Your task to perform on an android device: turn on improve location accuracy Image 0: 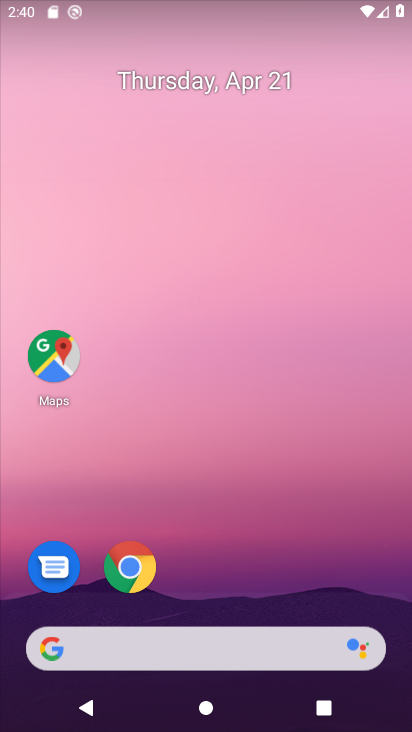
Step 0: drag from (255, 628) to (261, 123)
Your task to perform on an android device: turn on improve location accuracy Image 1: 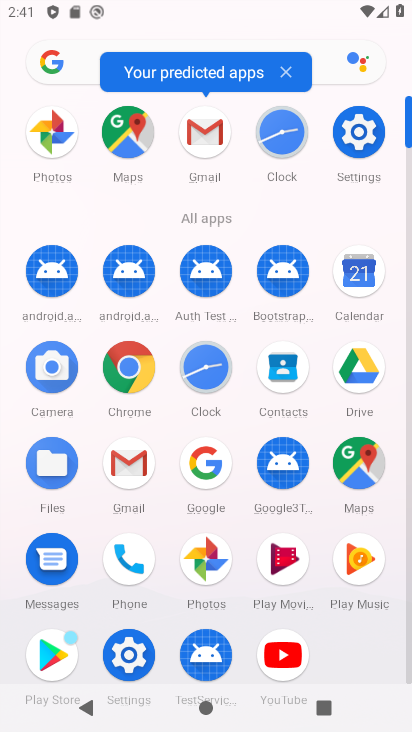
Step 1: click (360, 129)
Your task to perform on an android device: turn on improve location accuracy Image 2: 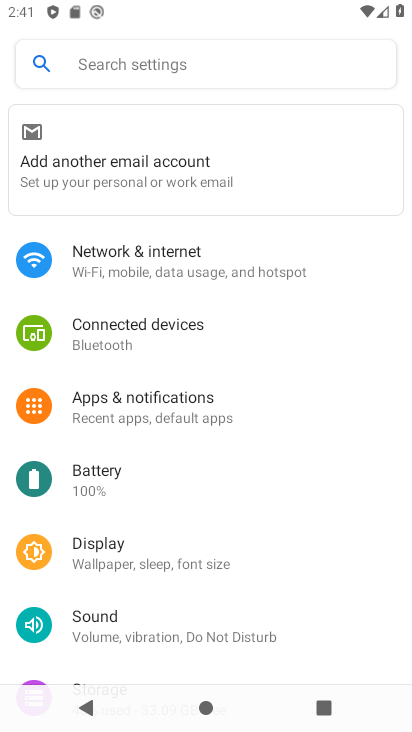
Step 2: drag from (168, 629) to (240, 220)
Your task to perform on an android device: turn on improve location accuracy Image 3: 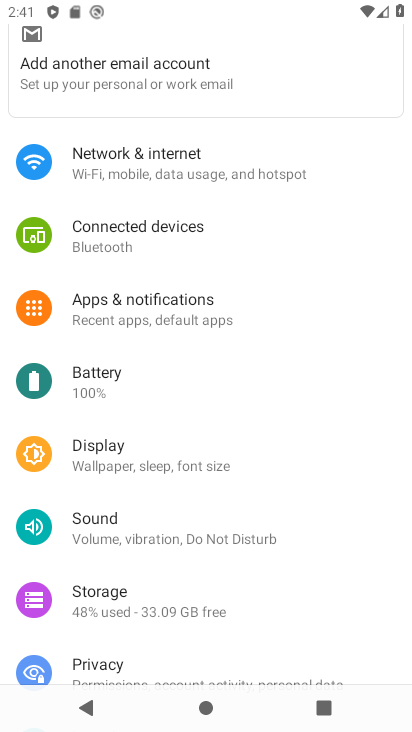
Step 3: drag from (105, 613) to (188, 183)
Your task to perform on an android device: turn on improve location accuracy Image 4: 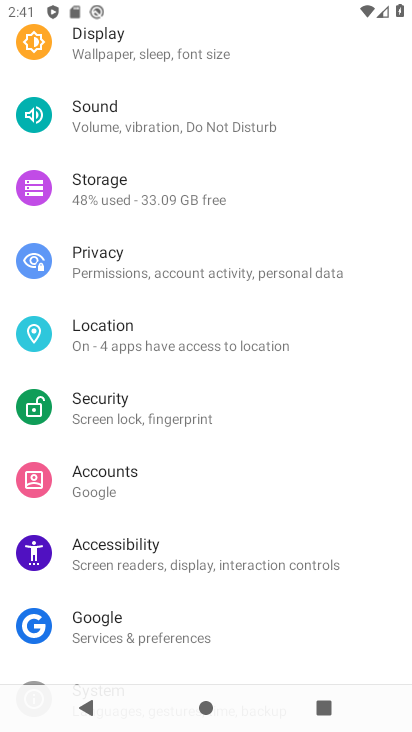
Step 4: click (130, 335)
Your task to perform on an android device: turn on improve location accuracy Image 5: 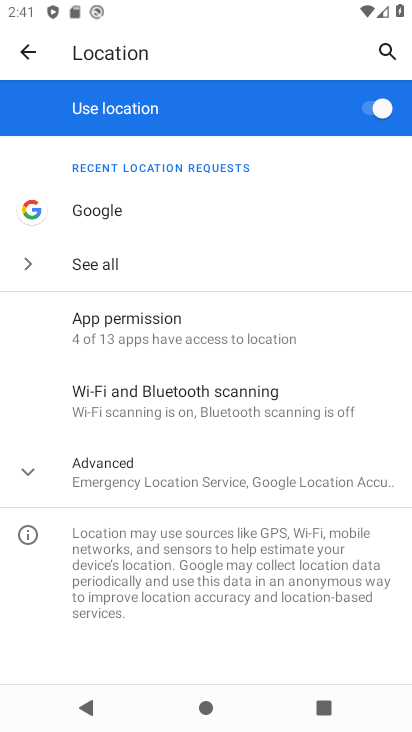
Step 5: click (100, 485)
Your task to perform on an android device: turn on improve location accuracy Image 6: 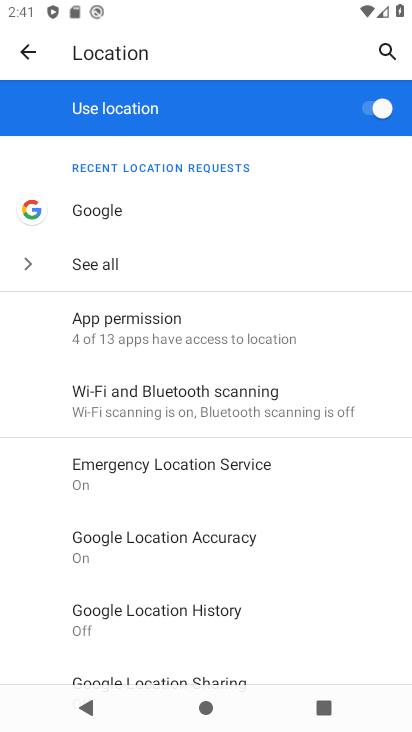
Step 6: click (186, 549)
Your task to perform on an android device: turn on improve location accuracy Image 7: 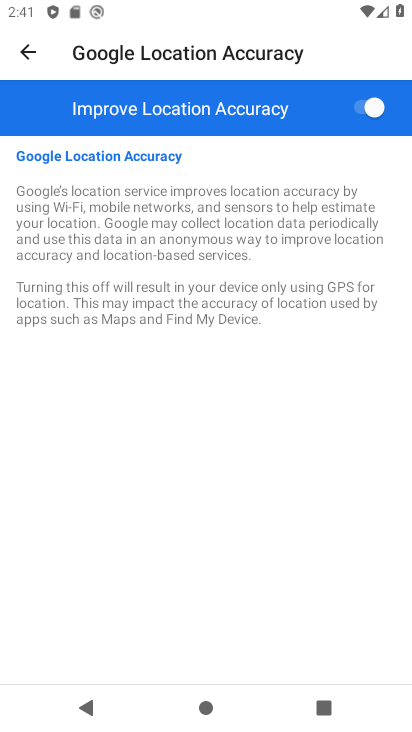
Step 7: task complete